Your task to perform on an android device: check google app version Image 0: 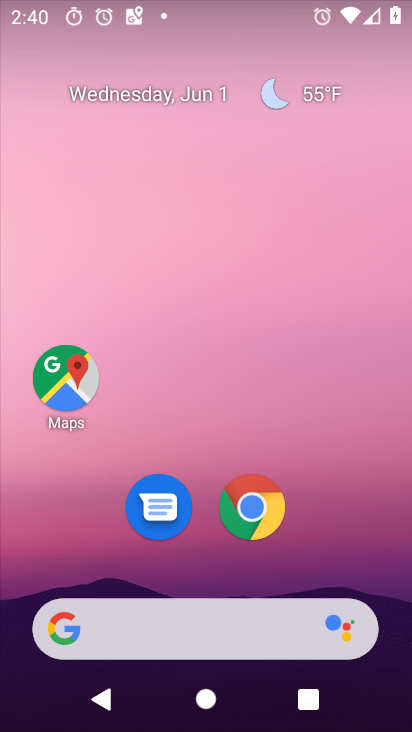
Step 0: drag from (345, 578) to (307, 15)
Your task to perform on an android device: check google app version Image 1: 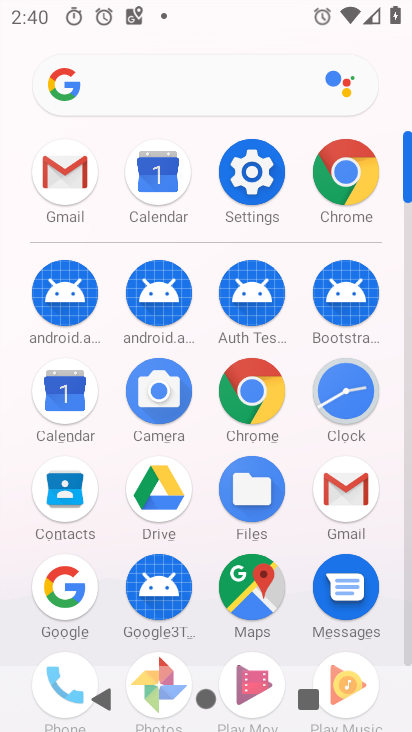
Step 1: click (65, 589)
Your task to perform on an android device: check google app version Image 2: 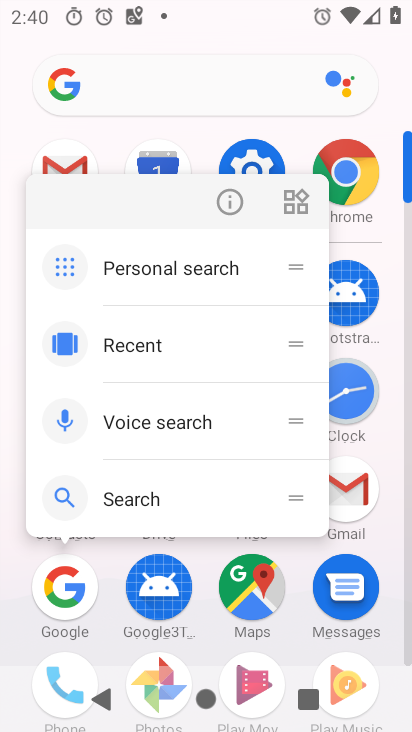
Step 2: click (224, 195)
Your task to perform on an android device: check google app version Image 3: 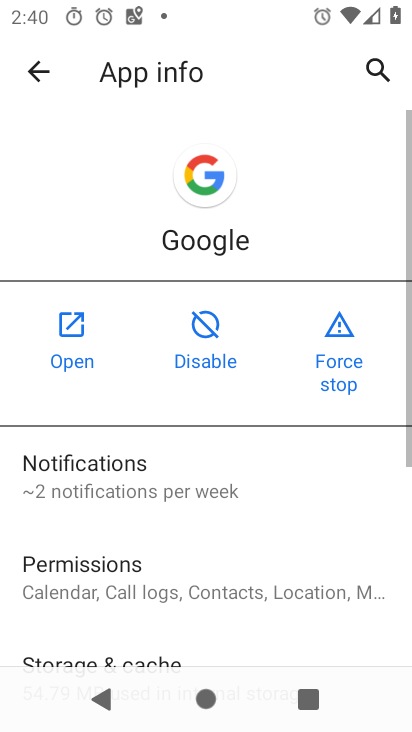
Step 3: drag from (229, 526) to (210, 139)
Your task to perform on an android device: check google app version Image 4: 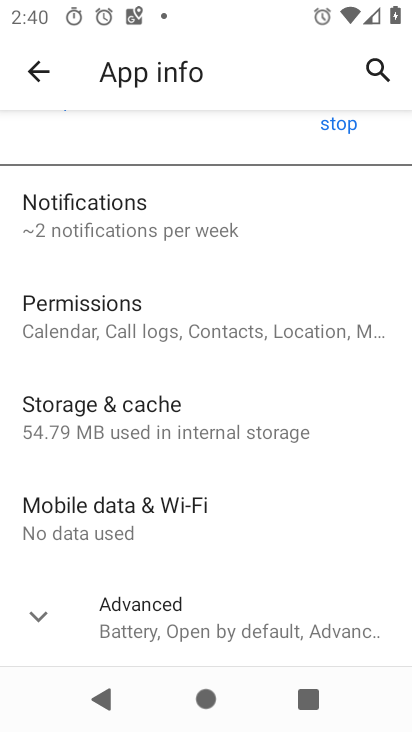
Step 4: drag from (181, 505) to (181, 211)
Your task to perform on an android device: check google app version Image 5: 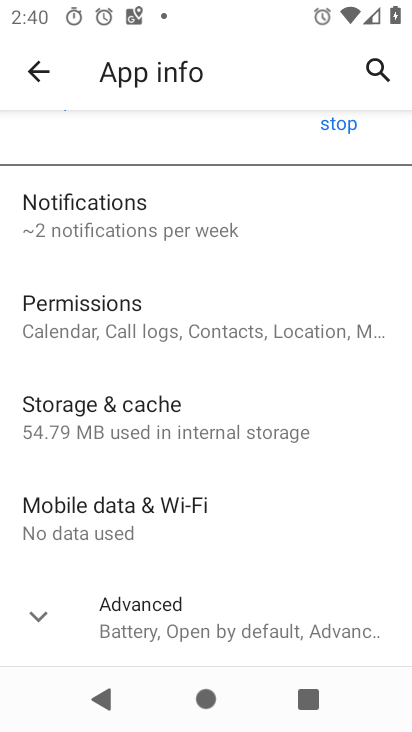
Step 5: click (40, 622)
Your task to perform on an android device: check google app version Image 6: 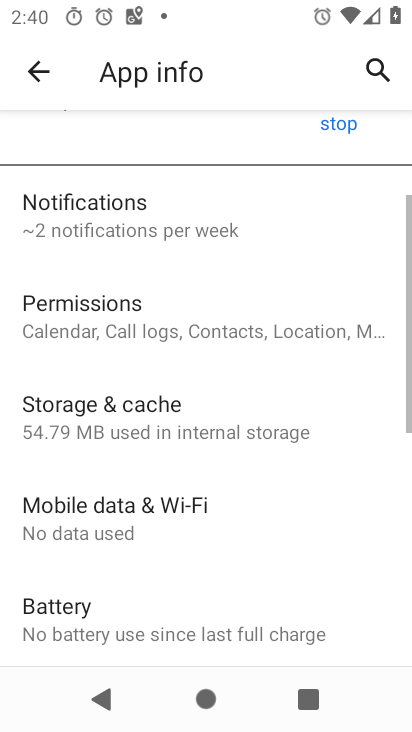
Step 6: task complete